Your task to perform on an android device: open app "Google Photos" (install if not already installed) Image 0: 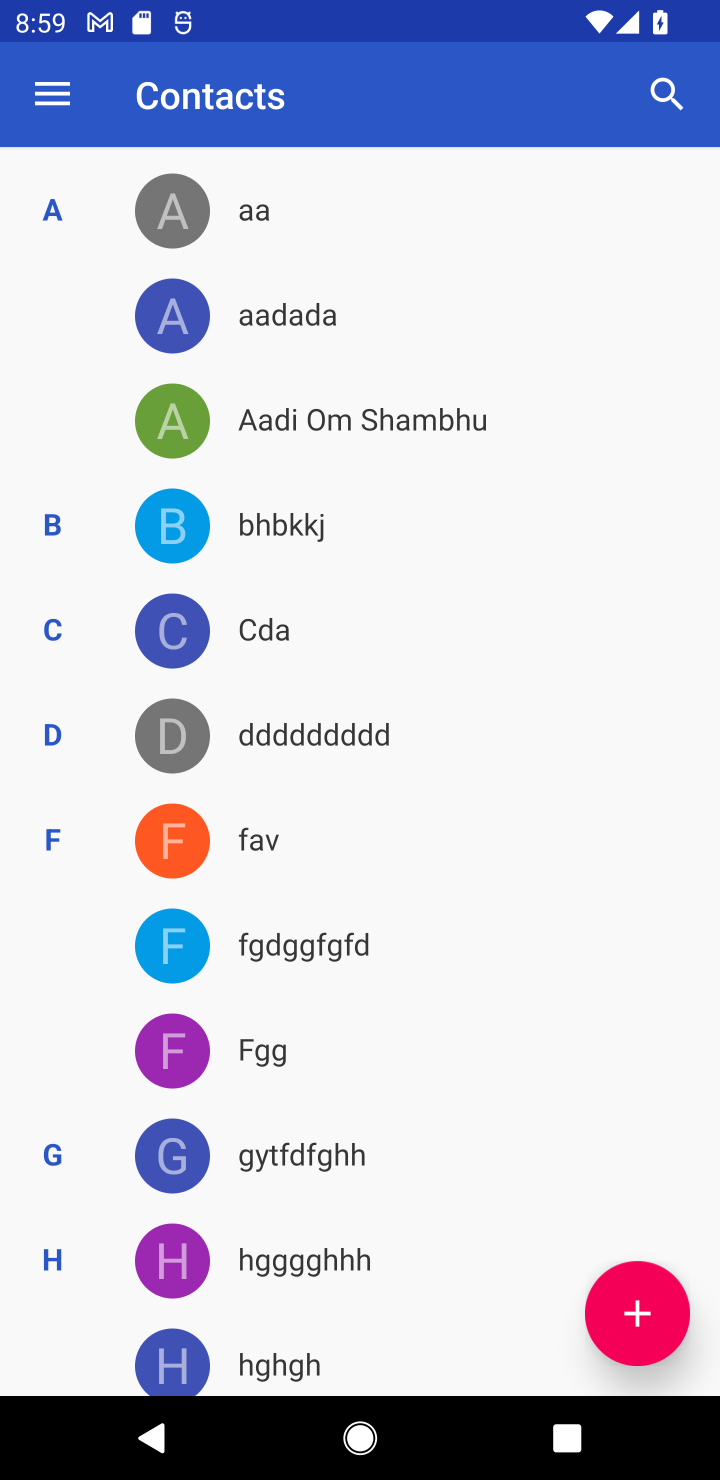
Step 0: press home button
Your task to perform on an android device: open app "Google Photos" (install if not already installed) Image 1: 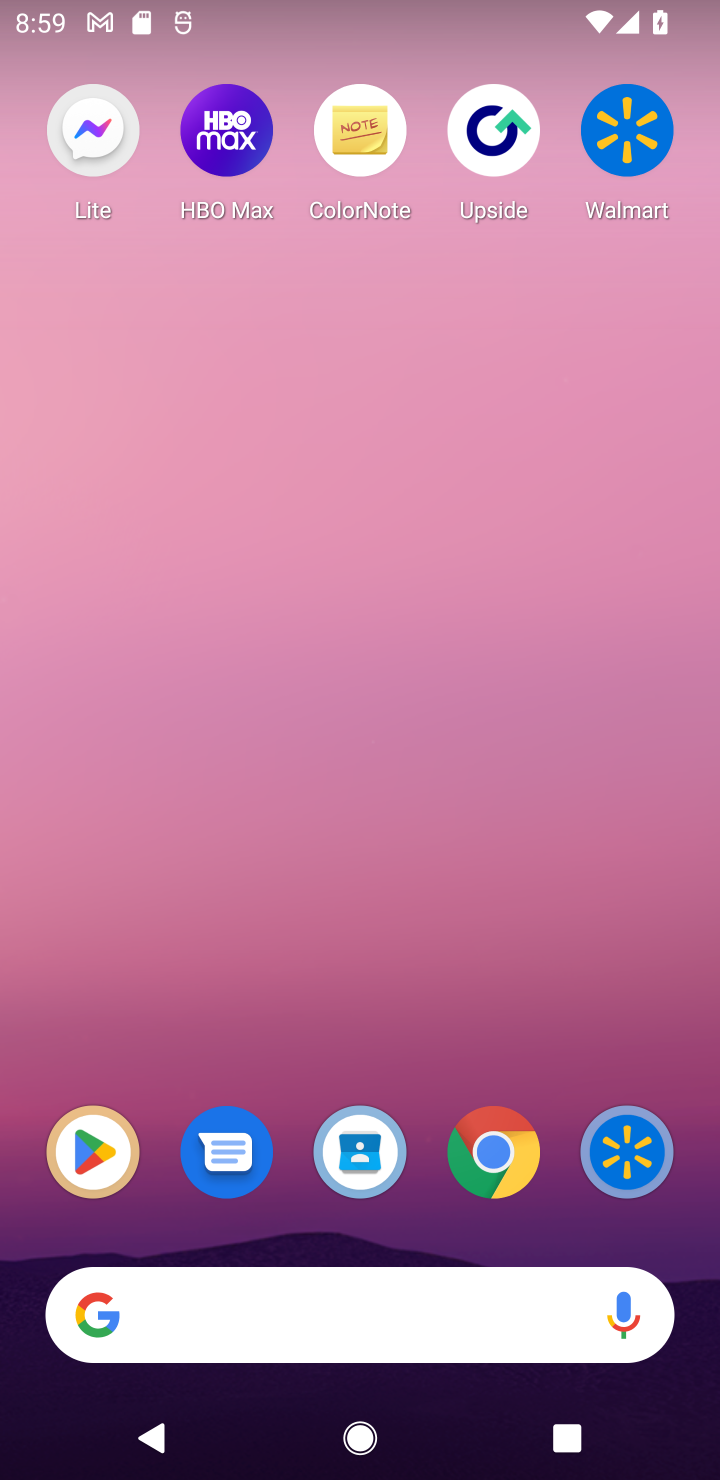
Step 1: drag from (383, 1179) to (100, 1433)
Your task to perform on an android device: open app "Google Photos" (install if not already installed) Image 2: 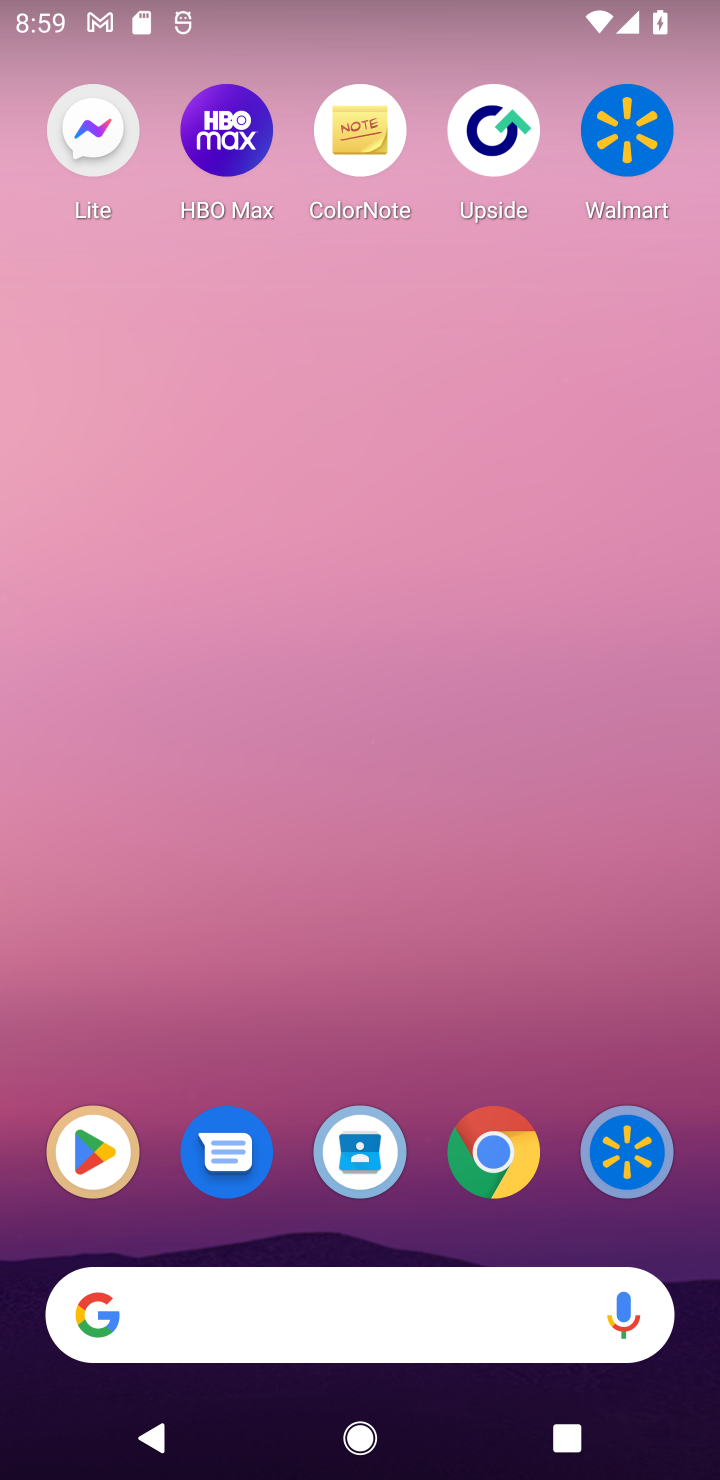
Step 2: drag from (400, 1263) to (314, 194)
Your task to perform on an android device: open app "Google Photos" (install if not already installed) Image 3: 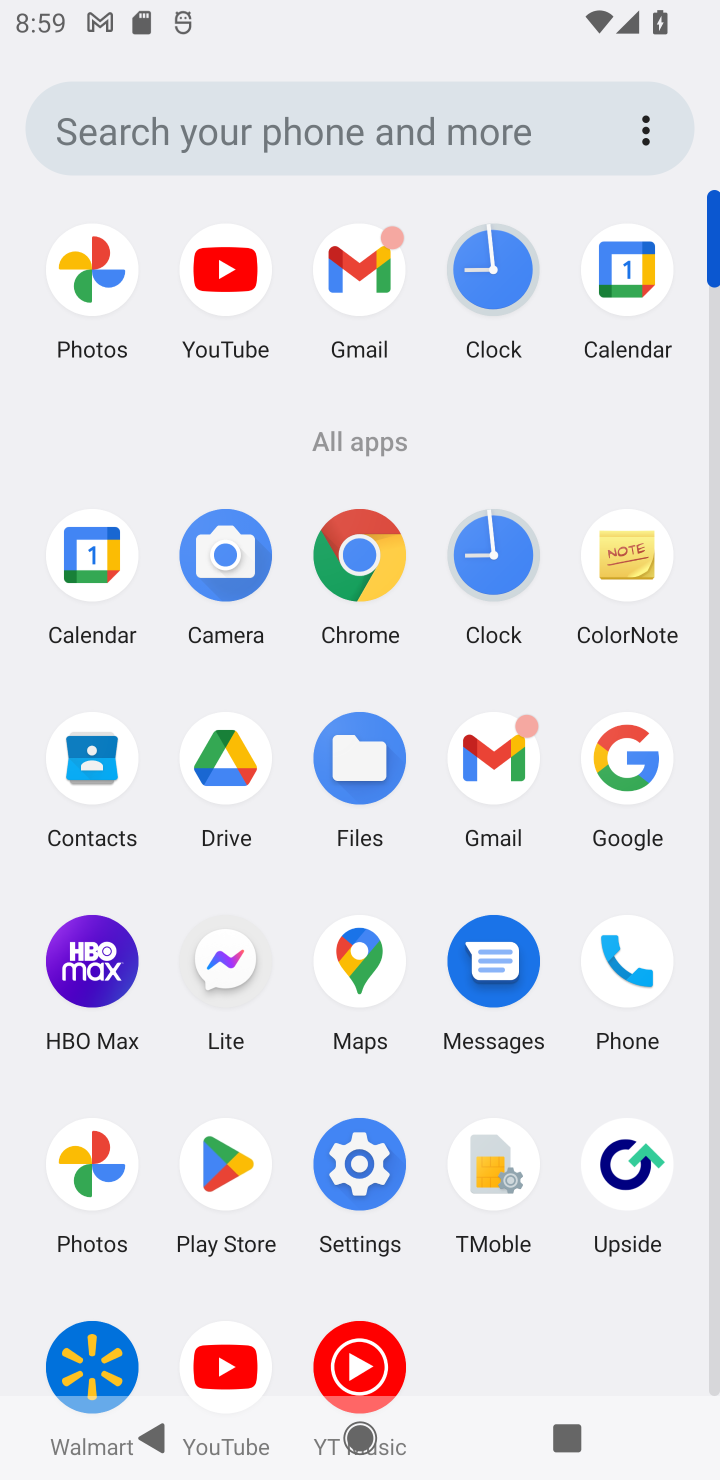
Step 3: click (92, 1172)
Your task to perform on an android device: open app "Google Photos" (install if not already installed) Image 4: 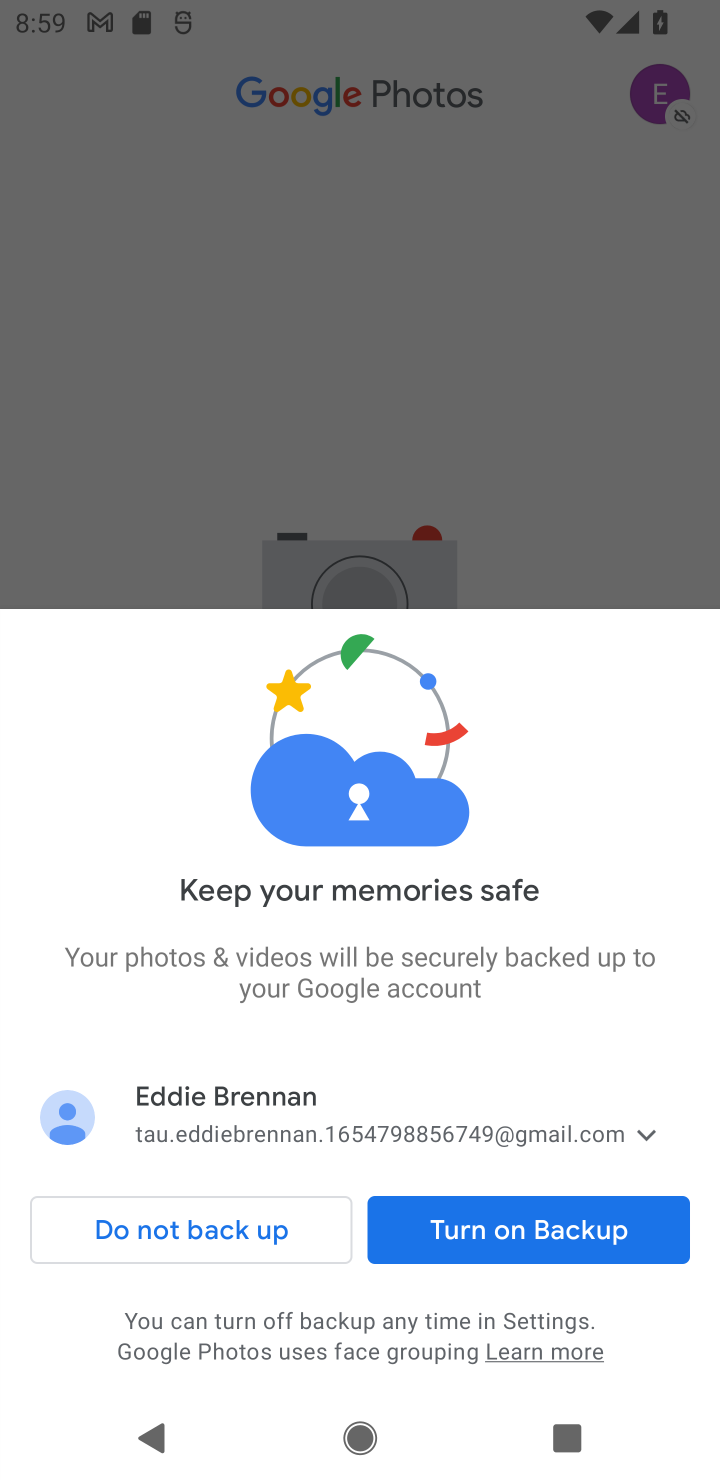
Step 4: click (198, 1255)
Your task to perform on an android device: open app "Google Photos" (install if not already installed) Image 5: 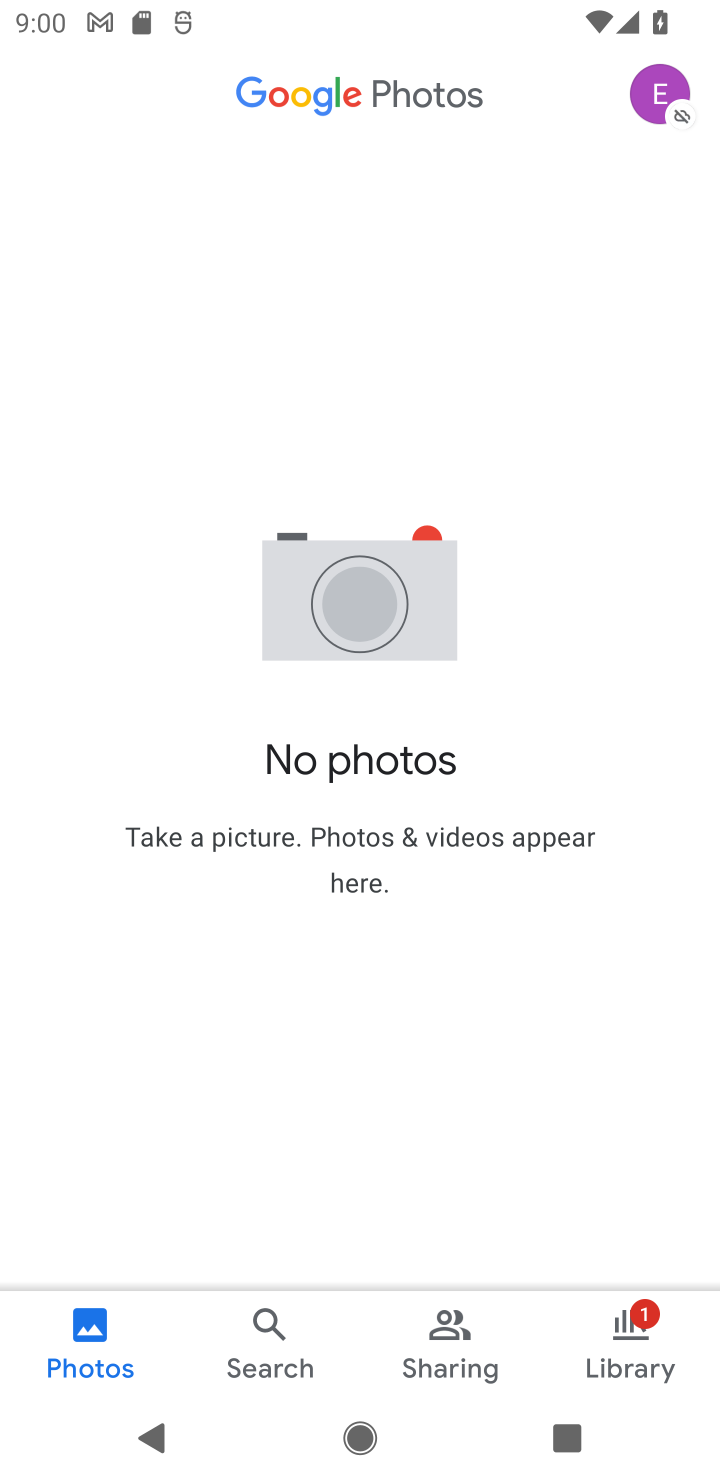
Step 5: task complete